Your task to perform on an android device: Search for razer nari on bestbuy.com, select the first entry, and add it to the cart. Image 0: 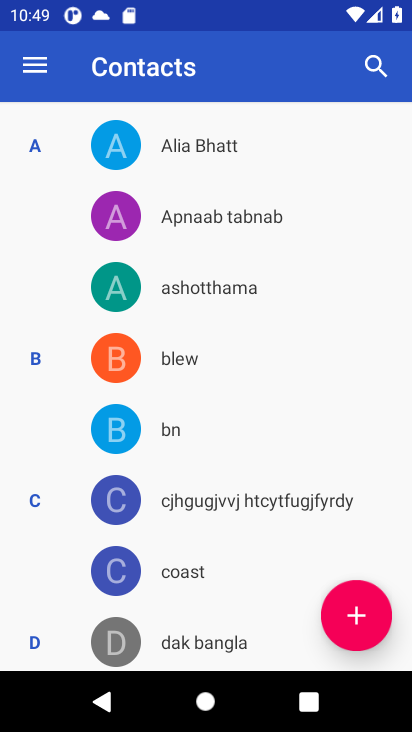
Step 0: press home button
Your task to perform on an android device: Search for razer nari on bestbuy.com, select the first entry, and add it to the cart. Image 1: 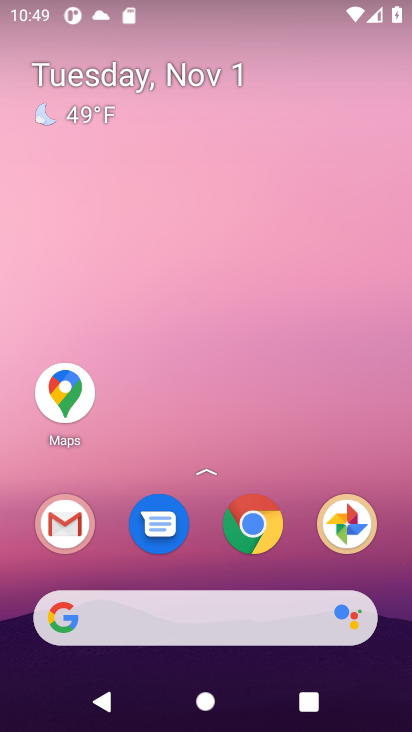
Step 1: click (93, 624)
Your task to perform on an android device: Search for razer nari on bestbuy.com, select the first entry, and add it to the cart. Image 2: 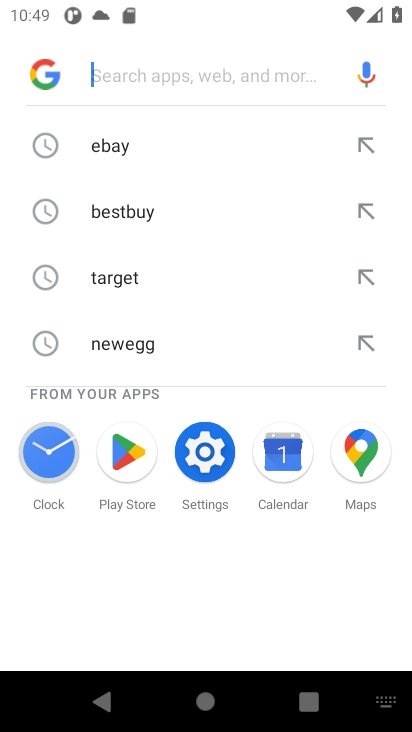
Step 2: type "bestbuy.com"
Your task to perform on an android device: Search for razer nari on bestbuy.com, select the first entry, and add it to the cart. Image 3: 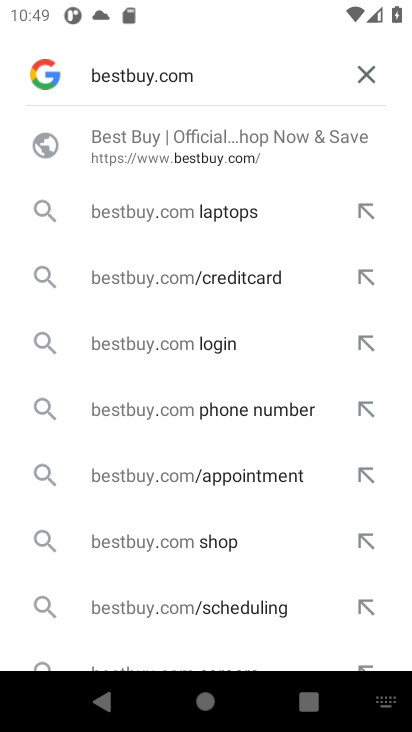
Step 3: press enter
Your task to perform on an android device: Search for razer nari on bestbuy.com, select the first entry, and add it to the cart. Image 4: 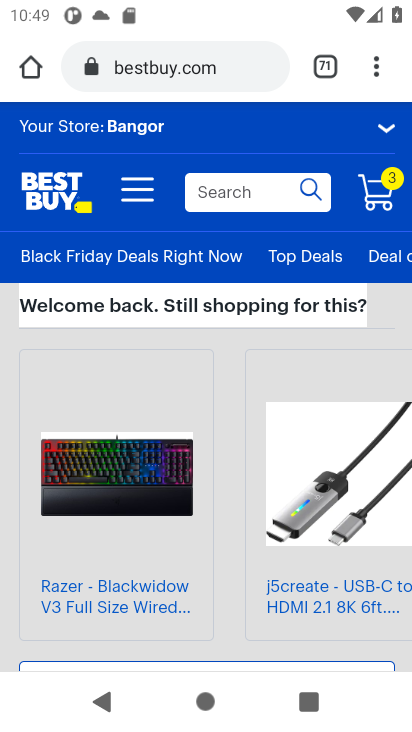
Step 4: click (212, 186)
Your task to perform on an android device: Search for razer nari on bestbuy.com, select the first entry, and add it to the cart. Image 5: 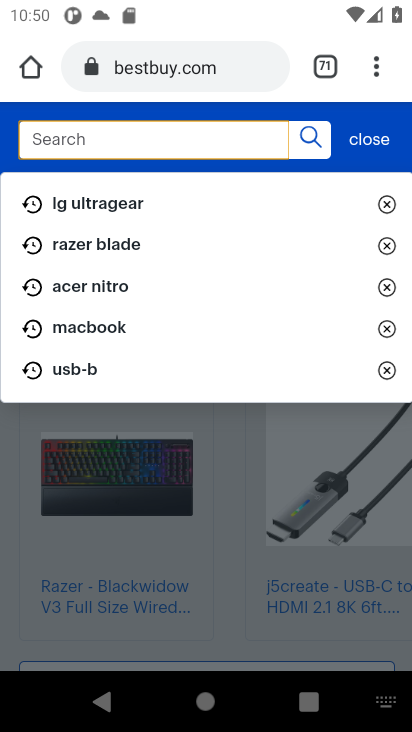
Step 5: type " razer nari "
Your task to perform on an android device: Search for razer nari on bestbuy.com, select the first entry, and add it to the cart. Image 6: 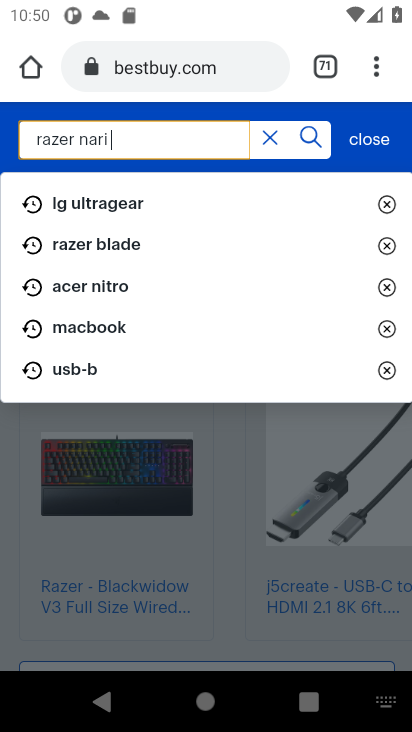
Step 6: press enter
Your task to perform on an android device: Search for razer nari on bestbuy.com, select the first entry, and add it to the cart. Image 7: 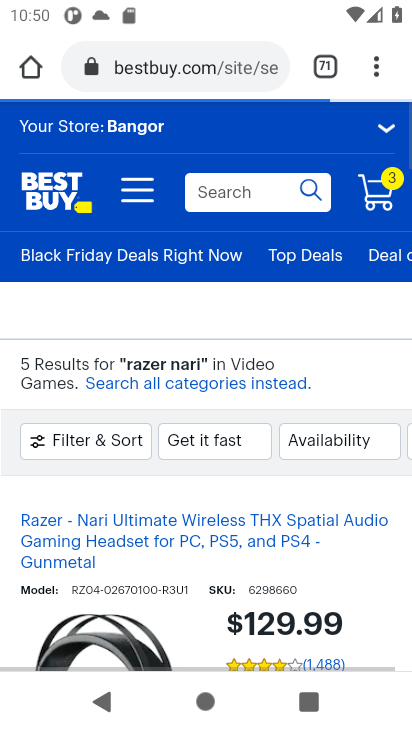
Step 7: drag from (183, 561) to (203, 287)
Your task to perform on an android device: Search for razer nari on bestbuy.com, select the first entry, and add it to the cart. Image 8: 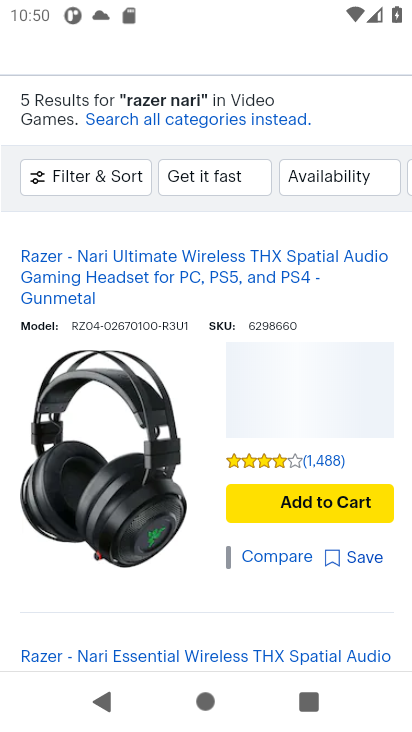
Step 8: drag from (190, 573) to (194, 356)
Your task to perform on an android device: Search for razer nari on bestbuy.com, select the first entry, and add it to the cart. Image 9: 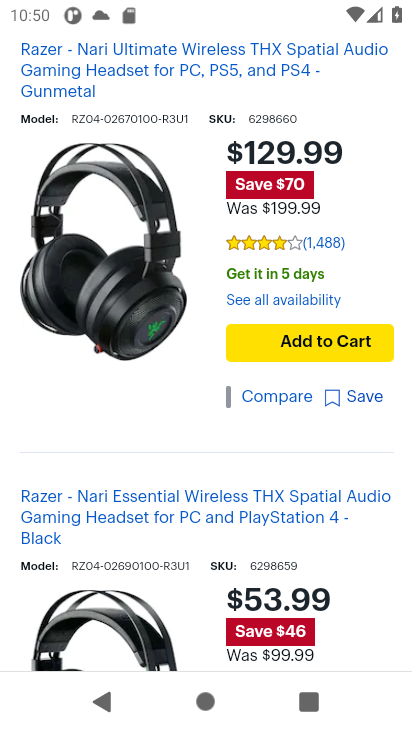
Step 9: drag from (192, 217) to (181, 422)
Your task to perform on an android device: Search for razer nari on bestbuy.com, select the first entry, and add it to the cart. Image 10: 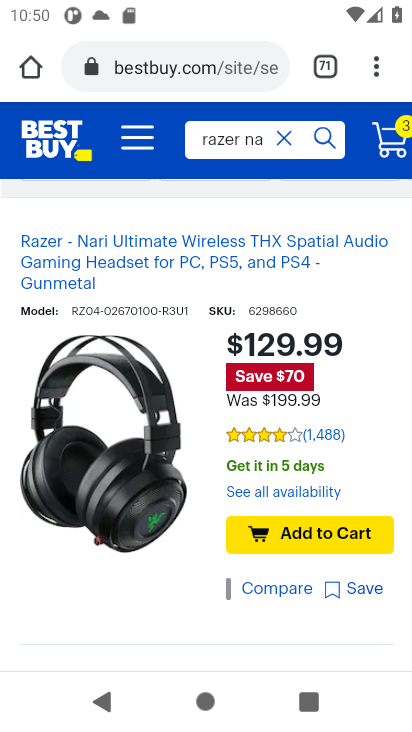
Step 10: click (318, 538)
Your task to perform on an android device: Search for razer nari on bestbuy.com, select the first entry, and add it to the cart. Image 11: 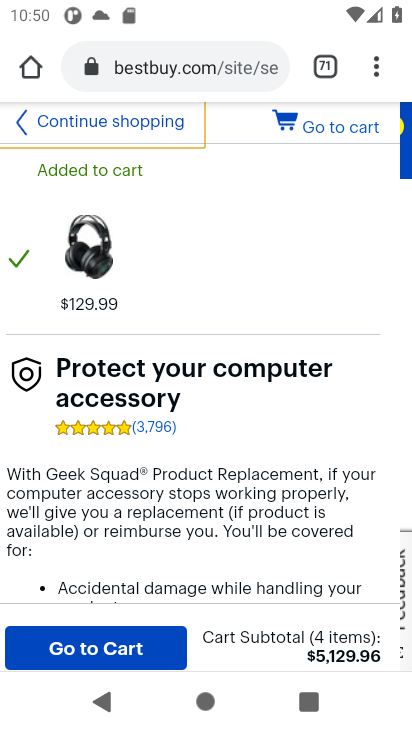
Step 11: task complete